Your task to perform on an android device: clear all cookies in the chrome app Image 0: 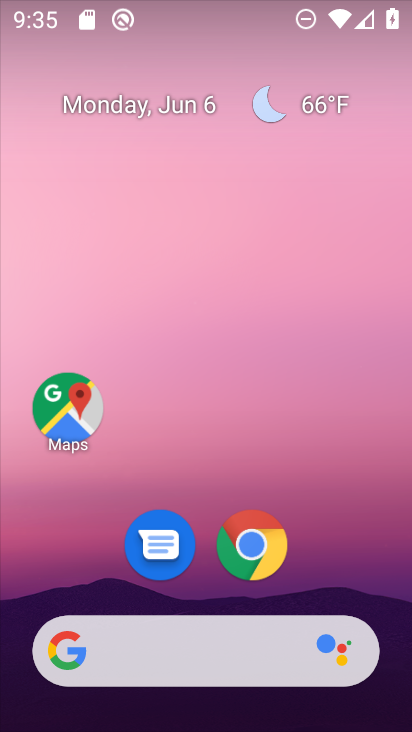
Step 0: click (260, 545)
Your task to perform on an android device: clear all cookies in the chrome app Image 1: 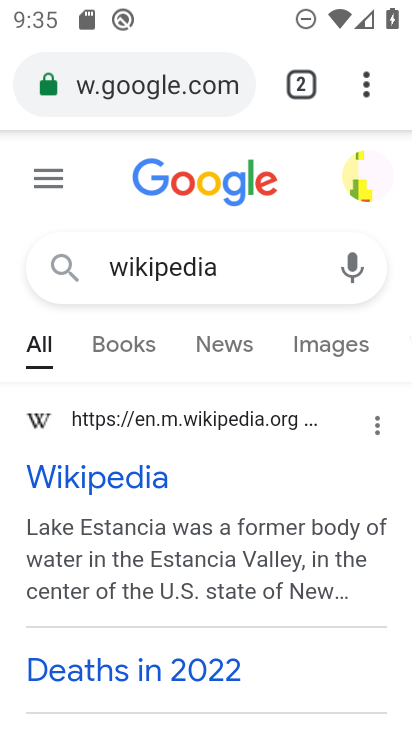
Step 1: click (368, 84)
Your task to perform on an android device: clear all cookies in the chrome app Image 2: 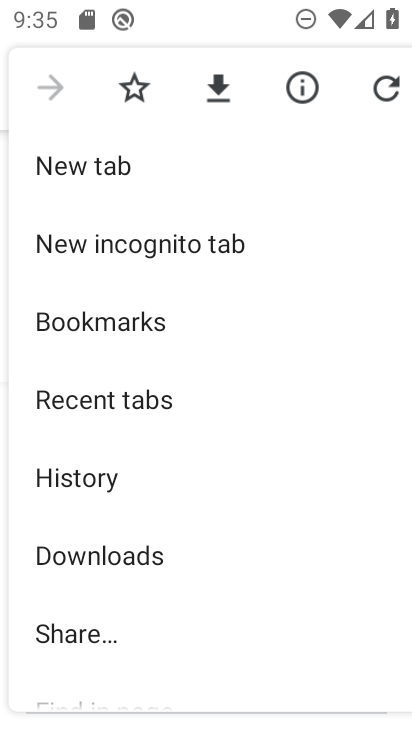
Step 2: click (103, 463)
Your task to perform on an android device: clear all cookies in the chrome app Image 3: 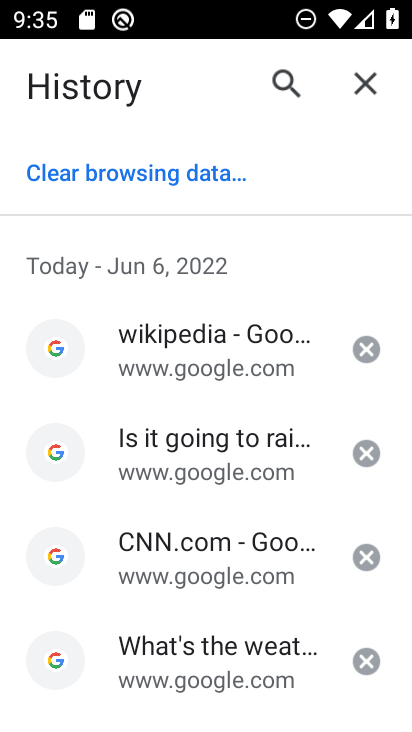
Step 3: click (156, 173)
Your task to perform on an android device: clear all cookies in the chrome app Image 4: 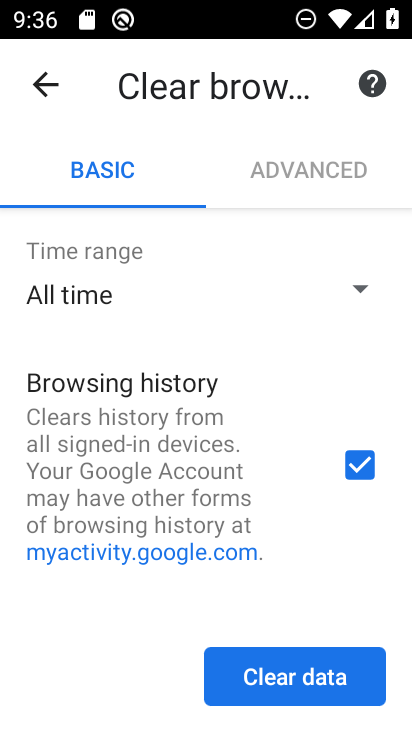
Step 4: drag from (316, 479) to (355, 219)
Your task to perform on an android device: clear all cookies in the chrome app Image 5: 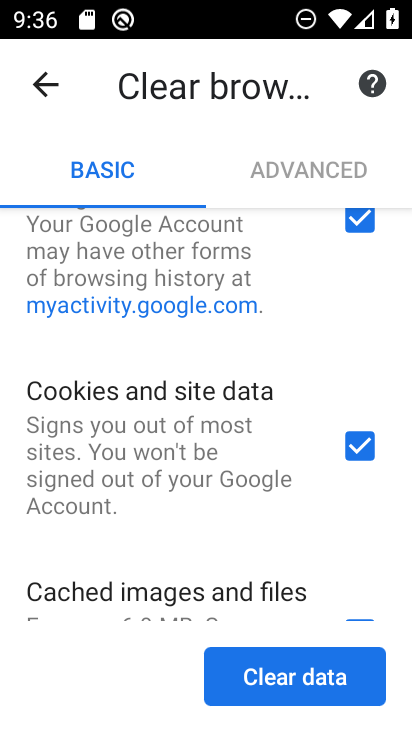
Step 5: click (359, 219)
Your task to perform on an android device: clear all cookies in the chrome app Image 6: 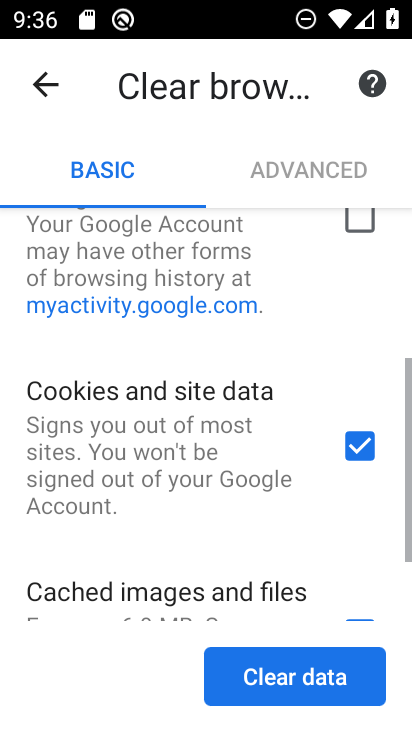
Step 6: drag from (255, 543) to (282, 290)
Your task to perform on an android device: clear all cookies in the chrome app Image 7: 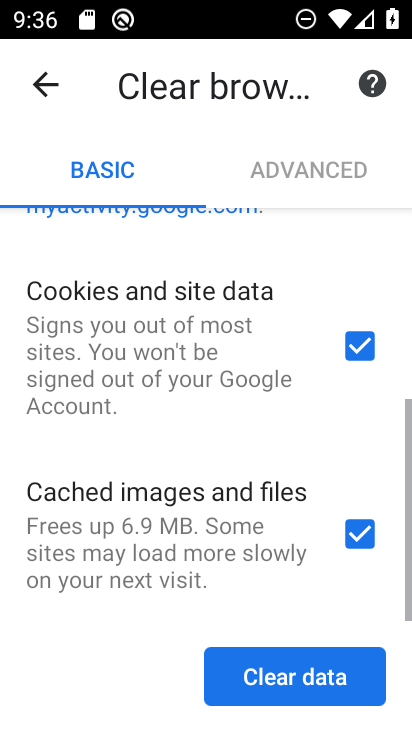
Step 7: click (355, 530)
Your task to perform on an android device: clear all cookies in the chrome app Image 8: 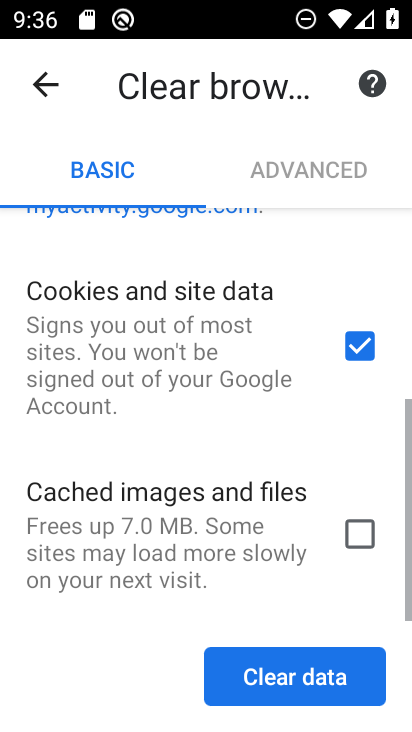
Step 8: click (289, 670)
Your task to perform on an android device: clear all cookies in the chrome app Image 9: 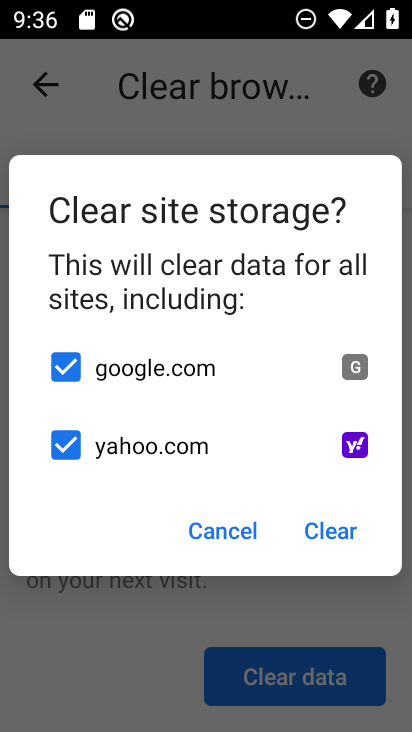
Step 9: click (339, 535)
Your task to perform on an android device: clear all cookies in the chrome app Image 10: 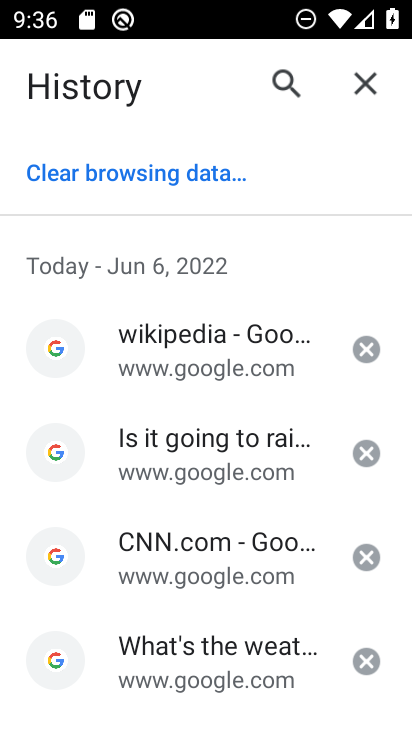
Step 10: task complete